Your task to perform on an android device: delete location history Image 0: 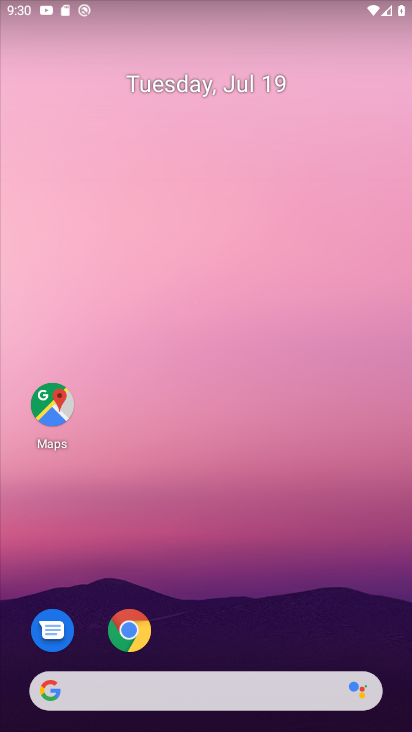
Step 0: drag from (249, 589) to (314, 15)
Your task to perform on an android device: delete location history Image 1: 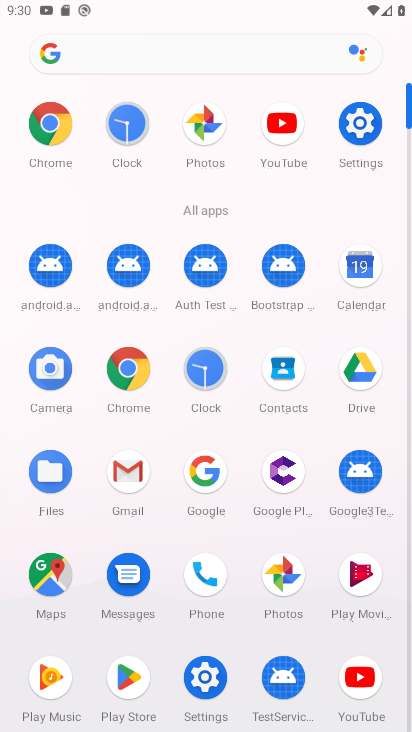
Step 1: click (51, 587)
Your task to perform on an android device: delete location history Image 2: 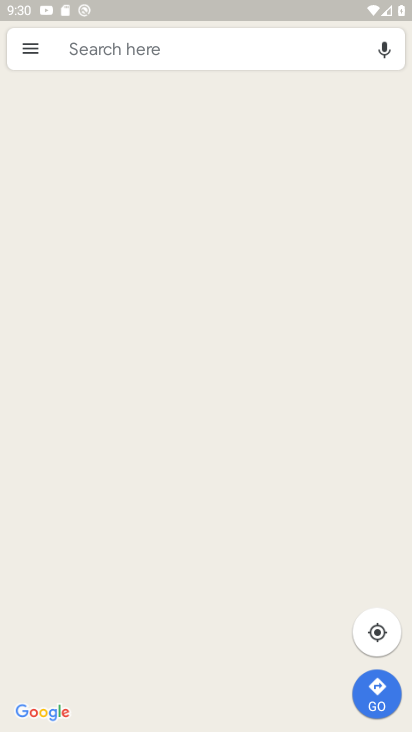
Step 2: click (26, 50)
Your task to perform on an android device: delete location history Image 3: 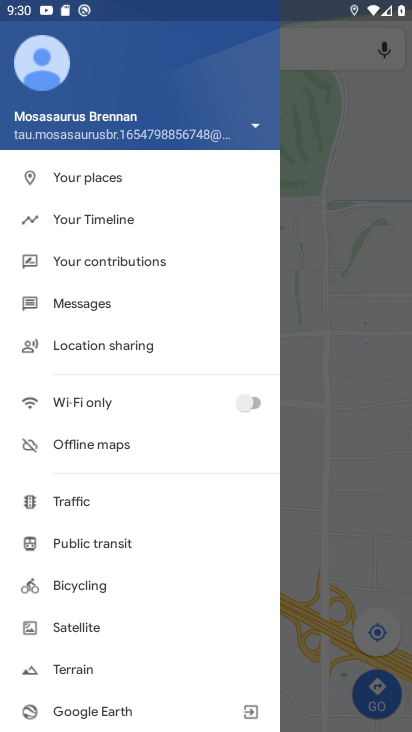
Step 3: click (115, 220)
Your task to perform on an android device: delete location history Image 4: 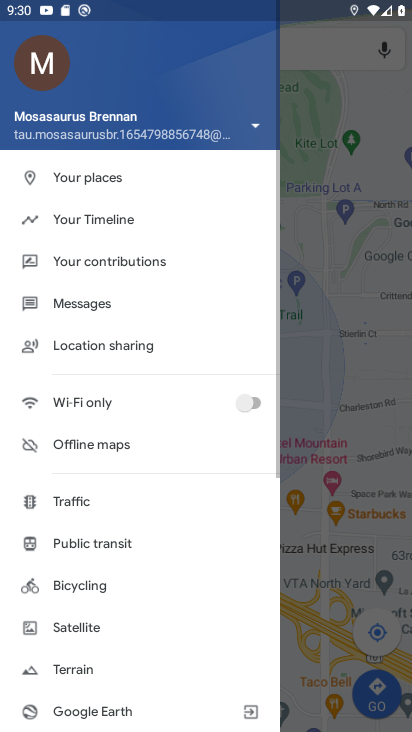
Step 4: click (107, 224)
Your task to perform on an android device: delete location history Image 5: 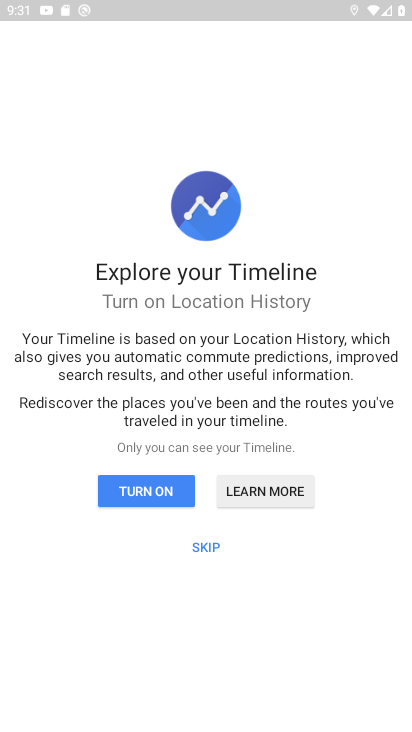
Step 5: click (215, 547)
Your task to perform on an android device: delete location history Image 6: 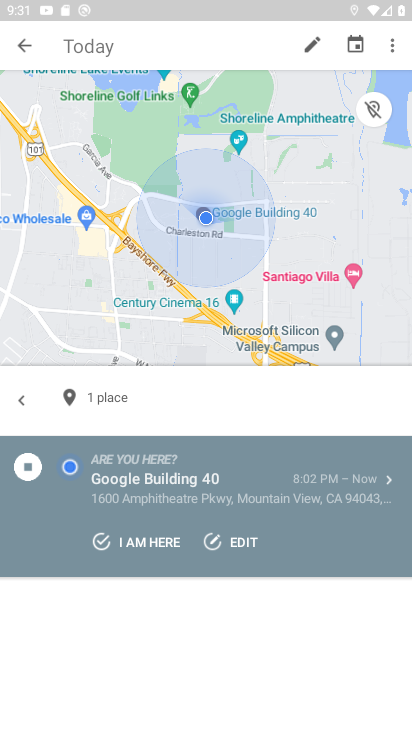
Step 6: click (391, 48)
Your task to perform on an android device: delete location history Image 7: 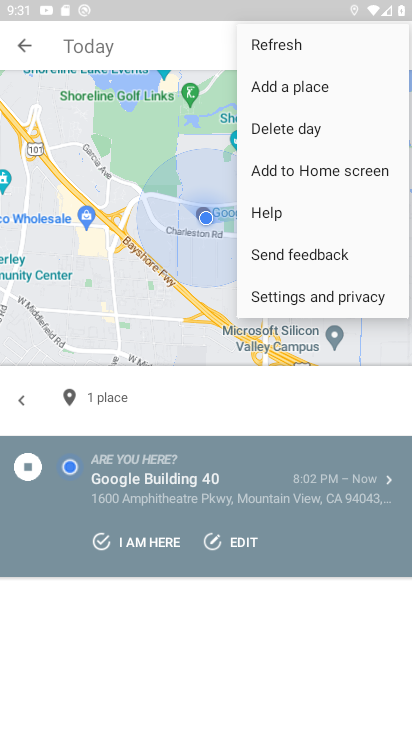
Step 7: click (286, 297)
Your task to perform on an android device: delete location history Image 8: 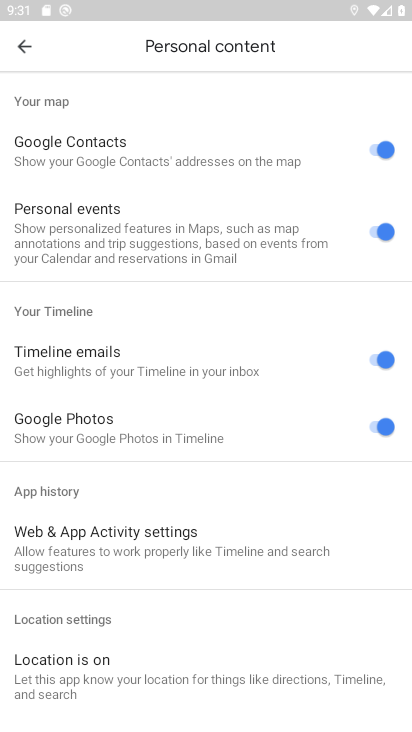
Step 8: drag from (101, 604) to (138, 380)
Your task to perform on an android device: delete location history Image 9: 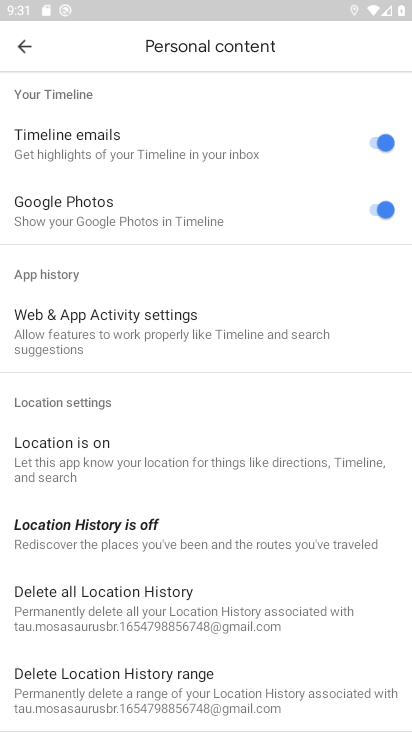
Step 9: click (137, 610)
Your task to perform on an android device: delete location history Image 10: 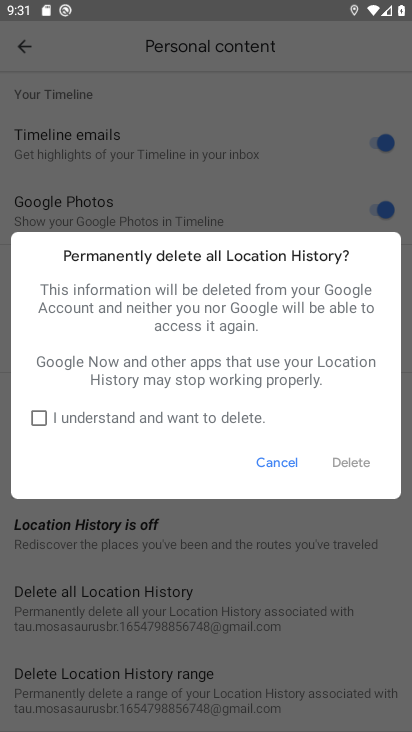
Step 10: click (100, 419)
Your task to perform on an android device: delete location history Image 11: 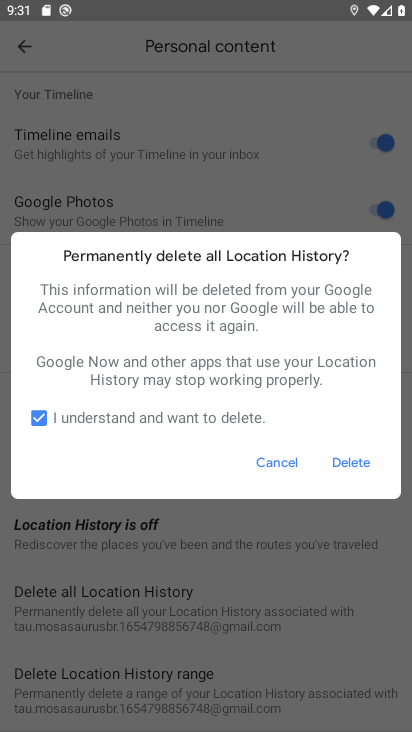
Step 11: click (345, 462)
Your task to perform on an android device: delete location history Image 12: 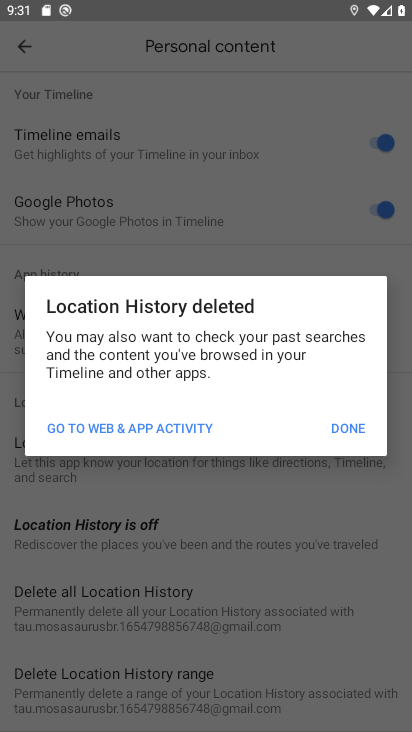
Step 12: click (350, 422)
Your task to perform on an android device: delete location history Image 13: 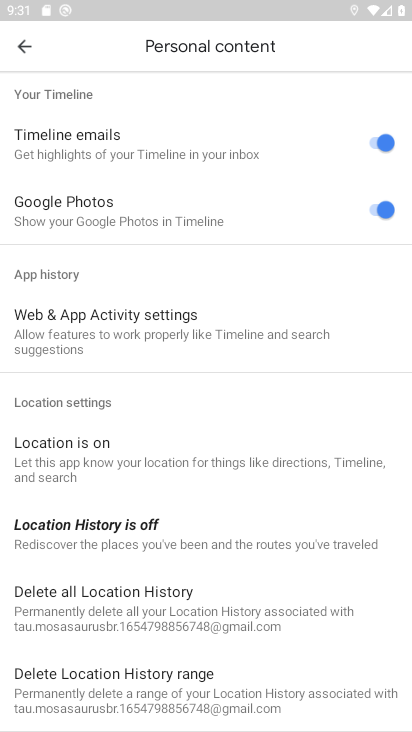
Step 13: task complete